Your task to perform on an android device: Go to Yahoo.com Image 0: 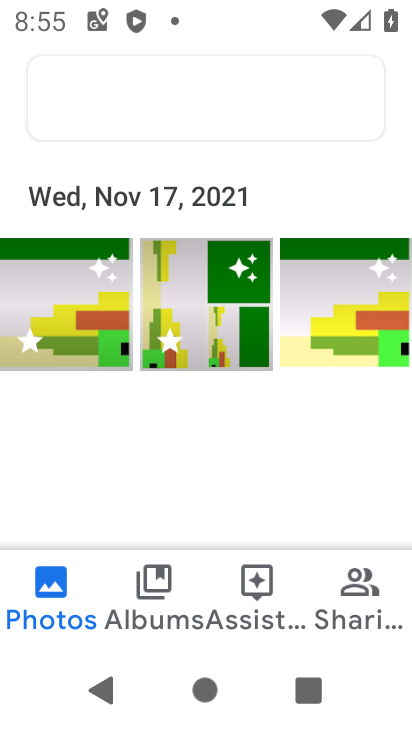
Step 0: drag from (324, 520) to (265, 8)
Your task to perform on an android device: Go to Yahoo.com Image 1: 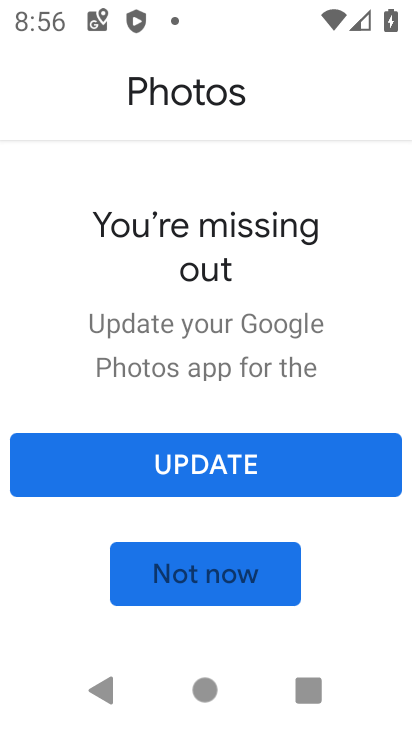
Step 1: press home button
Your task to perform on an android device: Go to Yahoo.com Image 2: 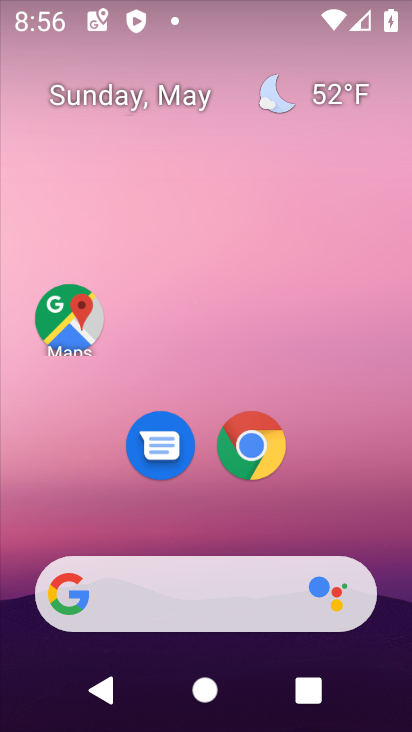
Step 2: click (262, 447)
Your task to perform on an android device: Go to Yahoo.com Image 3: 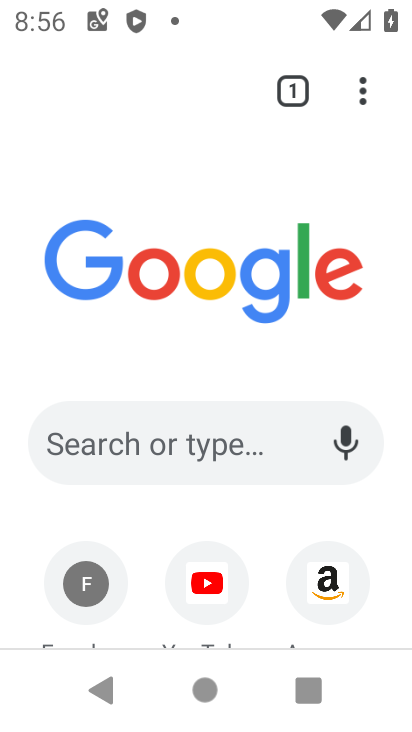
Step 3: drag from (150, 517) to (153, 161)
Your task to perform on an android device: Go to Yahoo.com Image 4: 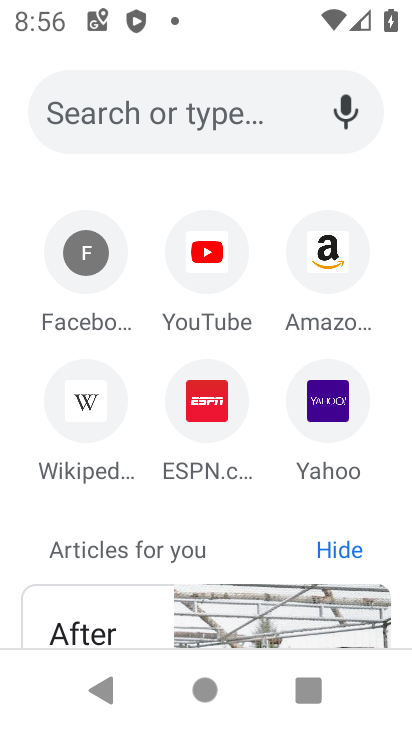
Step 4: click (319, 413)
Your task to perform on an android device: Go to Yahoo.com Image 5: 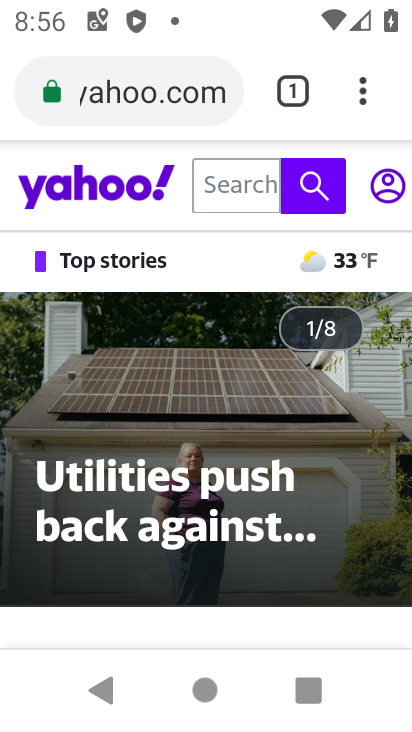
Step 5: task complete